Your task to perform on an android device: Open my contact list Image 0: 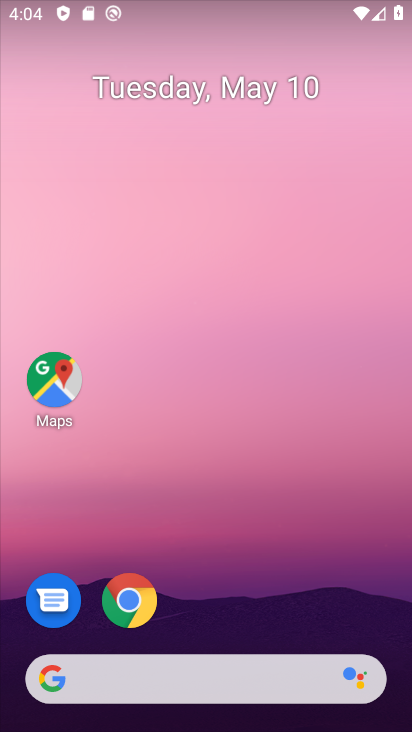
Step 0: drag from (221, 620) to (226, 222)
Your task to perform on an android device: Open my contact list Image 1: 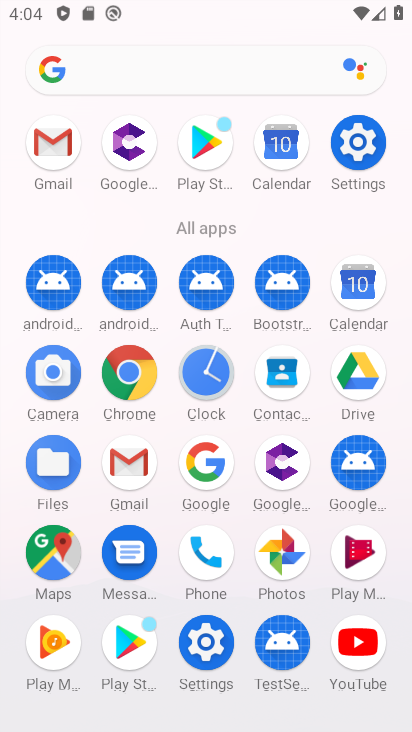
Step 1: click (220, 558)
Your task to perform on an android device: Open my contact list Image 2: 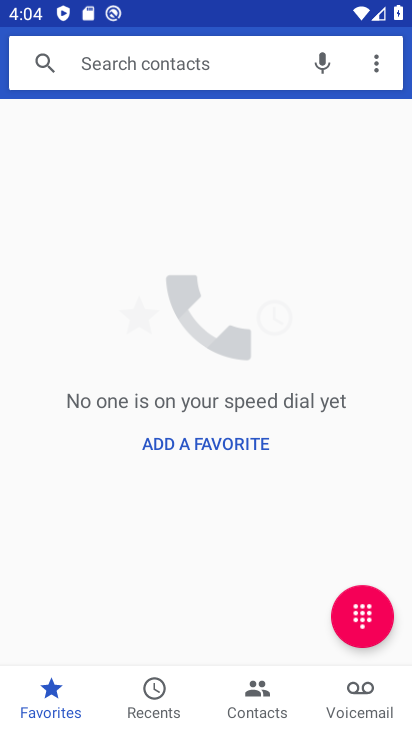
Step 2: click (245, 704)
Your task to perform on an android device: Open my contact list Image 3: 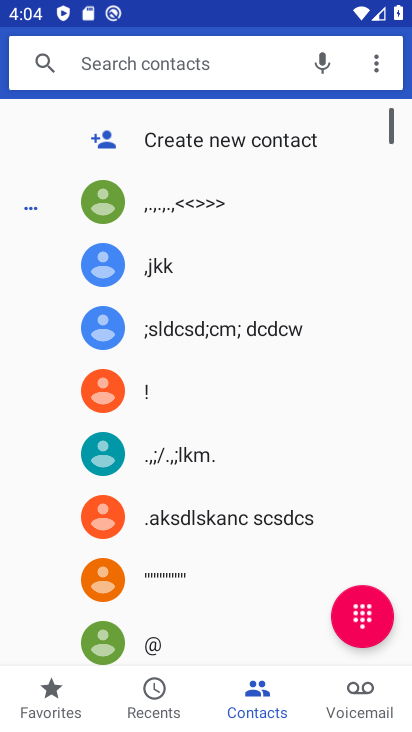
Step 3: task complete